Your task to perform on an android device: Open Google Chrome and open the bookmarks view Image 0: 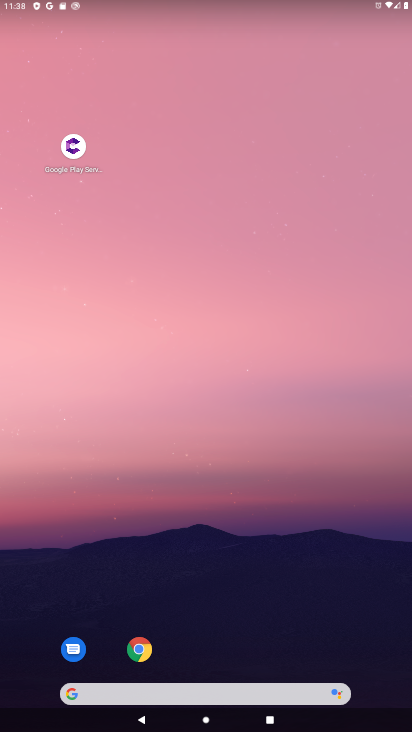
Step 0: drag from (328, 629) to (246, 67)
Your task to perform on an android device: Open Google Chrome and open the bookmarks view Image 1: 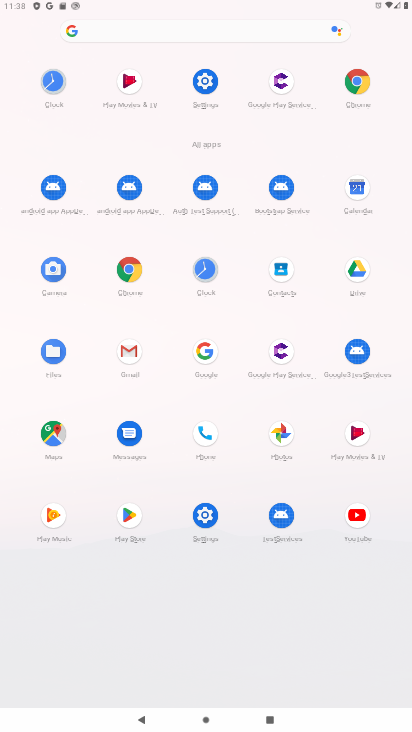
Step 1: click (128, 274)
Your task to perform on an android device: Open Google Chrome and open the bookmarks view Image 2: 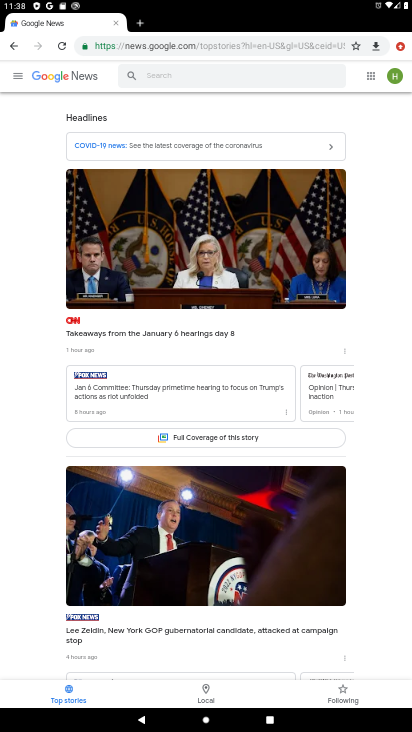
Step 2: task complete